Your task to perform on an android device: clear all cookies in the chrome app Image 0: 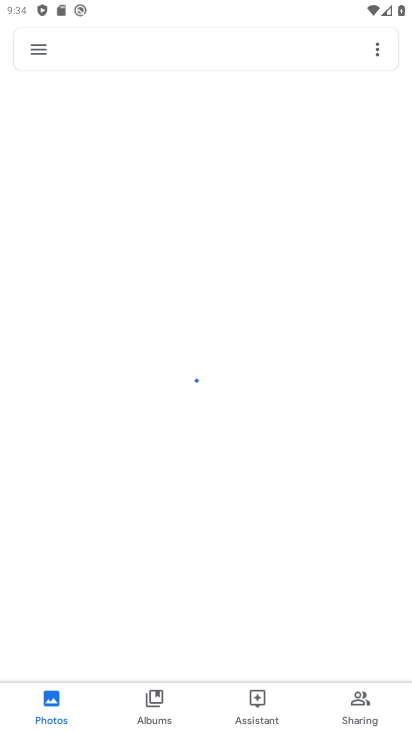
Step 0: press home button
Your task to perform on an android device: clear all cookies in the chrome app Image 1: 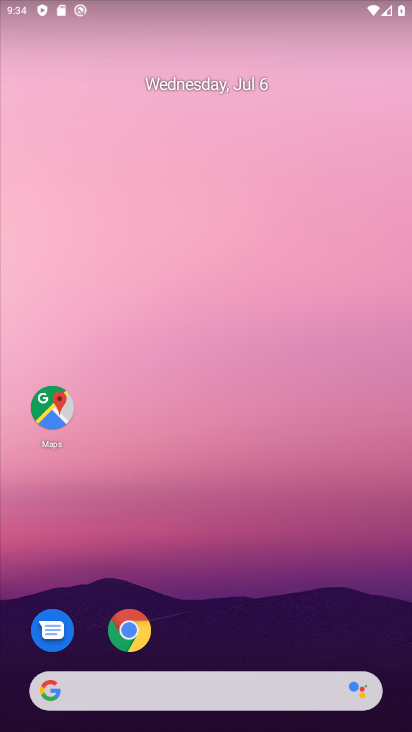
Step 1: drag from (272, 619) to (281, 1)
Your task to perform on an android device: clear all cookies in the chrome app Image 2: 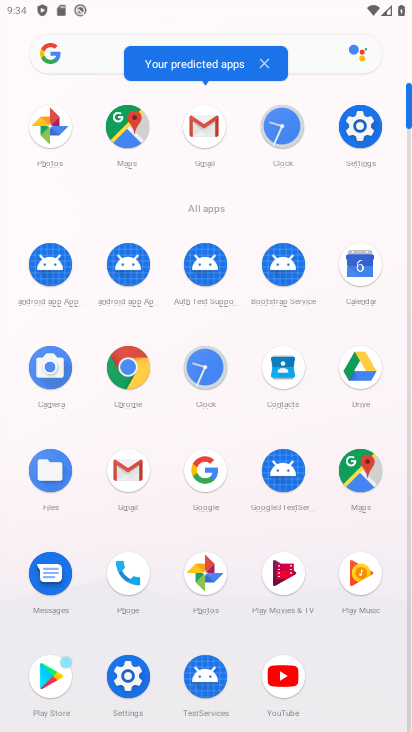
Step 2: click (131, 372)
Your task to perform on an android device: clear all cookies in the chrome app Image 3: 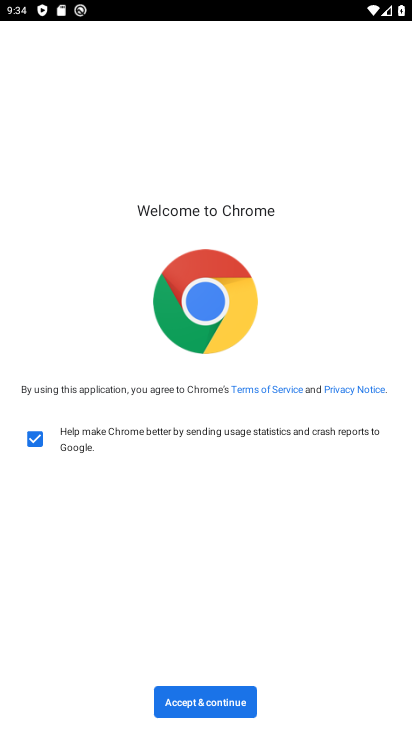
Step 3: click (215, 715)
Your task to perform on an android device: clear all cookies in the chrome app Image 4: 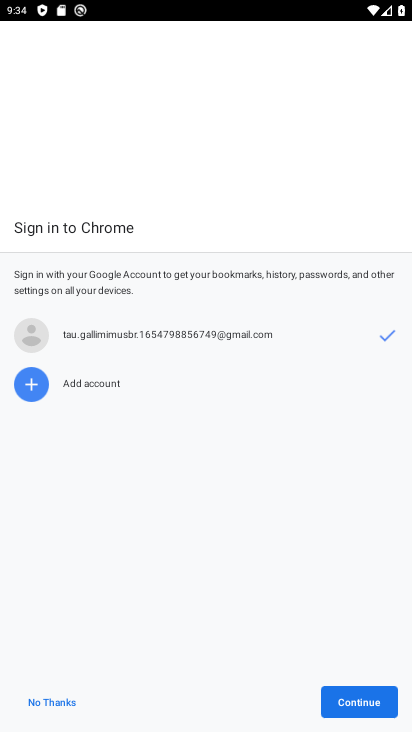
Step 4: click (339, 709)
Your task to perform on an android device: clear all cookies in the chrome app Image 5: 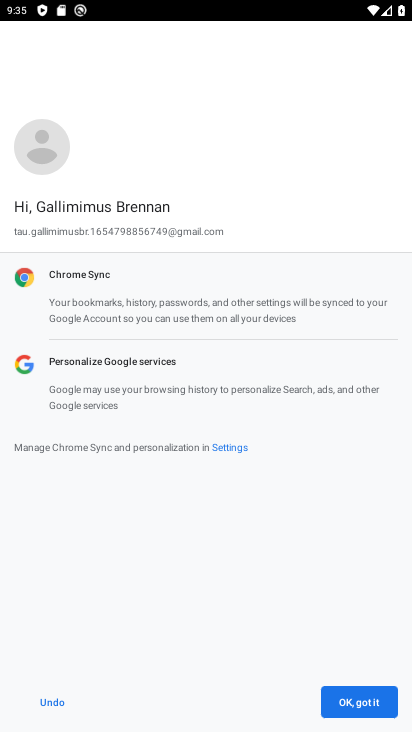
Step 5: click (339, 703)
Your task to perform on an android device: clear all cookies in the chrome app Image 6: 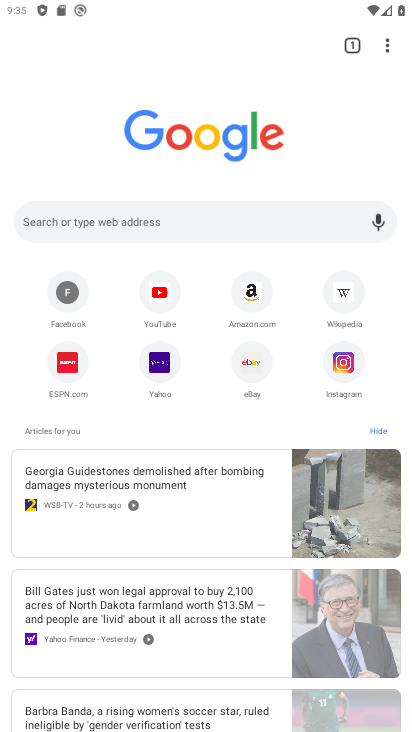
Step 6: click (390, 39)
Your task to perform on an android device: clear all cookies in the chrome app Image 7: 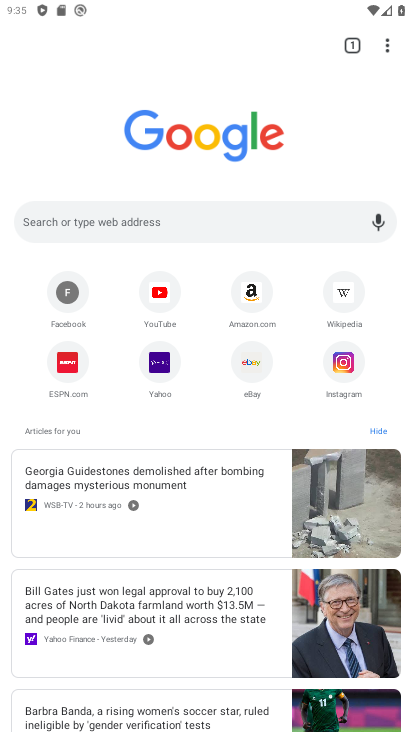
Step 7: drag from (386, 41) to (203, 381)
Your task to perform on an android device: clear all cookies in the chrome app Image 8: 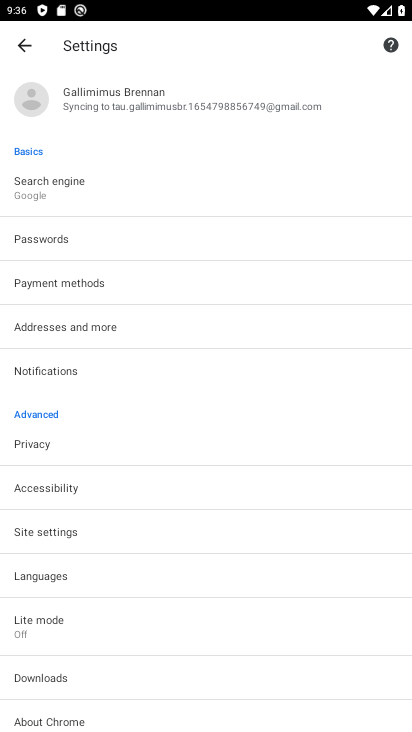
Step 8: drag from (115, 613) to (115, 463)
Your task to perform on an android device: clear all cookies in the chrome app Image 9: 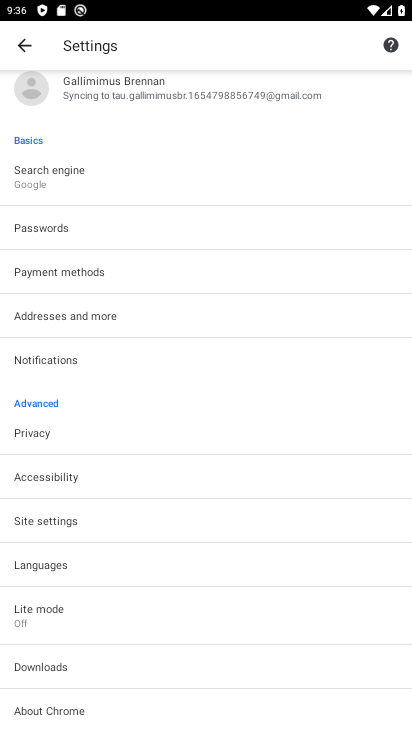
Step 9: click (136, 444)
Your task to perform on an android device: clear all cookies in the chrome app Image 10: 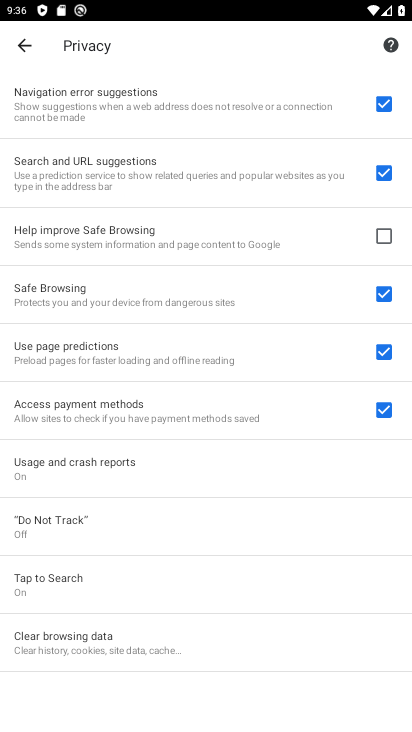
Step 10: click (137, 650)
Your task to perform on an android device: clear all cookies in the chrome app Image 11: 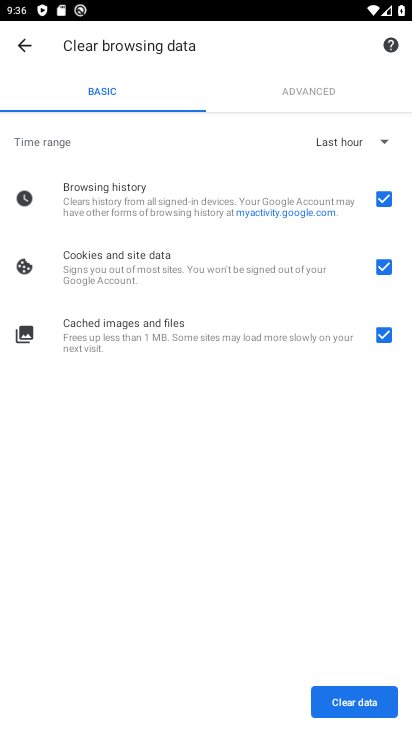
Step 11: click (339, 691)
Your task to perform on an android device: clear all cookies in the chrome app Image 12: 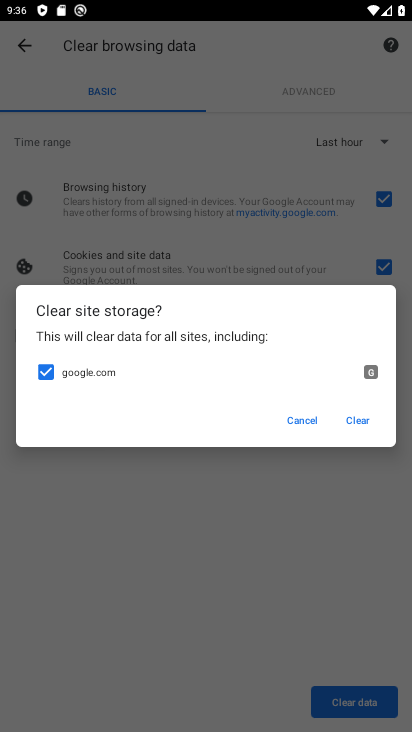
Step 12: click (352, 417)
Your task to perform on an android device: clear all cookies in the chrome app Image 13: 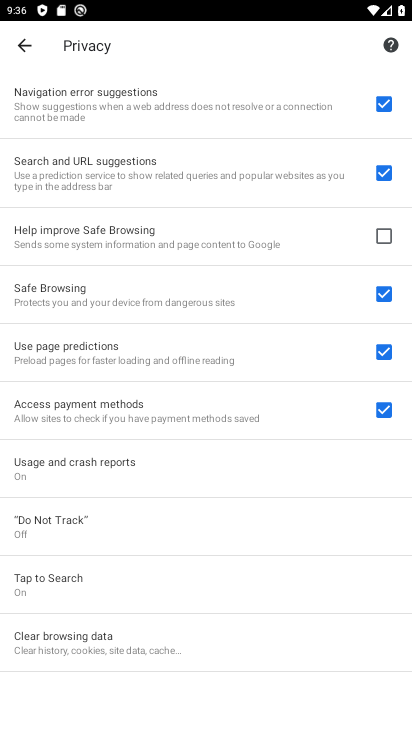
Step 13: task complete